Your task to perform on an android device: turn off improve location accuracy Image 0: 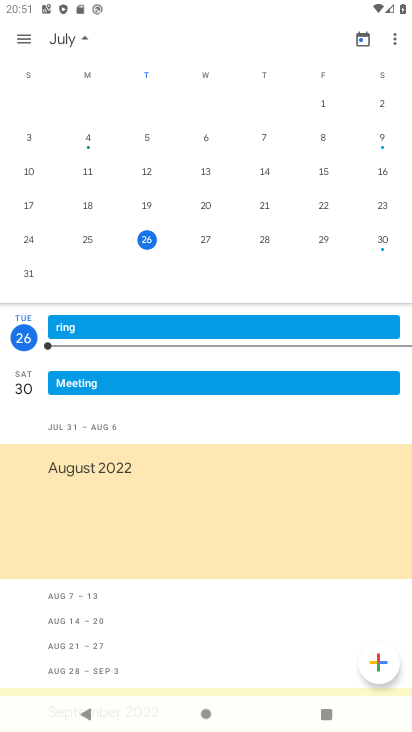
Step 0: press home button
Your task to perform on an android device: turn off improve location accuracy Image 1: 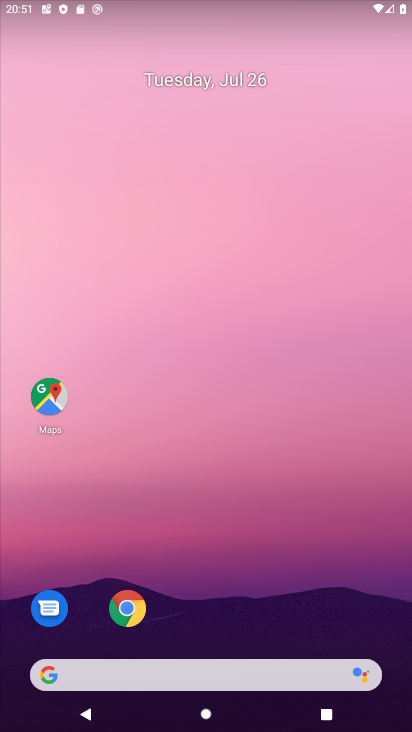
Step 1: drag from (37, 717) to (267, 174)
Your task to perform on an android device: turn off improve location accuracy Image 2: 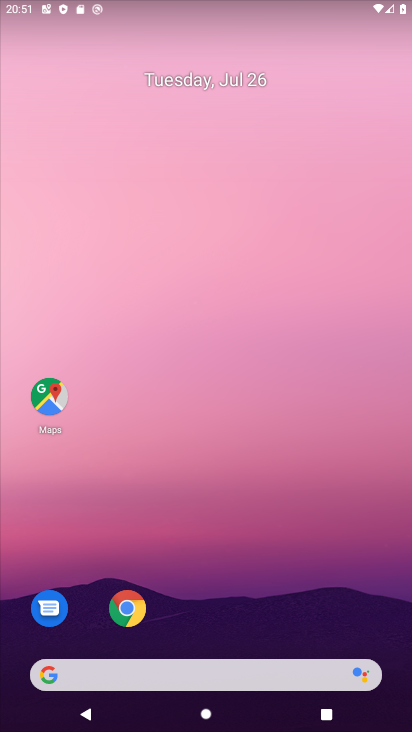
Step 2: drag from (21, 688) to (208, 181)
Your task to perform on an android device: turn off improve location accuracy Image 3: 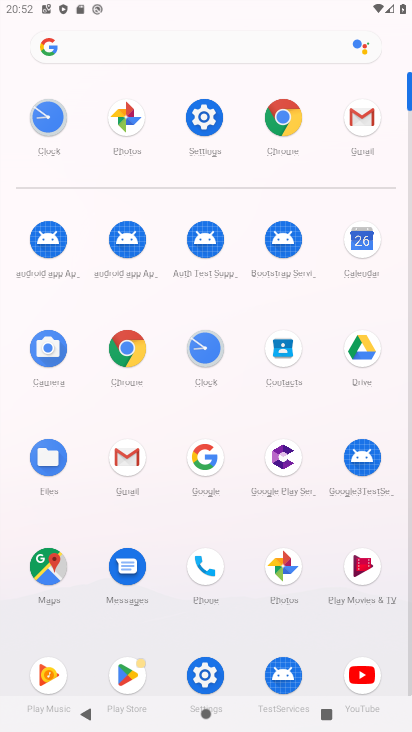
Step 3: click (208, 671)
Your task to perform on an android device: turn off improve location accuracy Image 4: 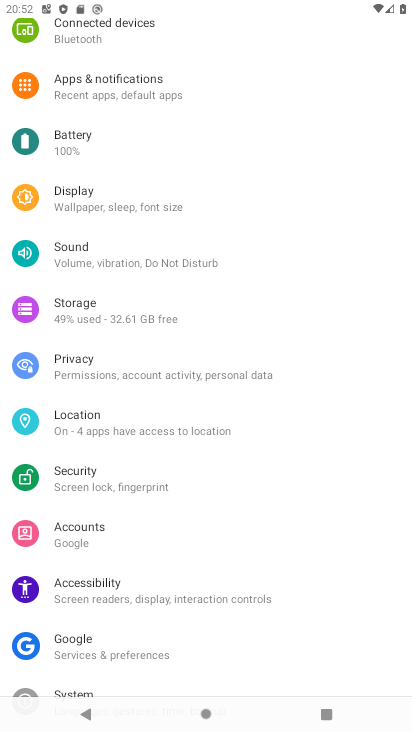
Step 4: click (105, 407)
Your task to perform on an android device: turn off improve location accuracy Image 5: 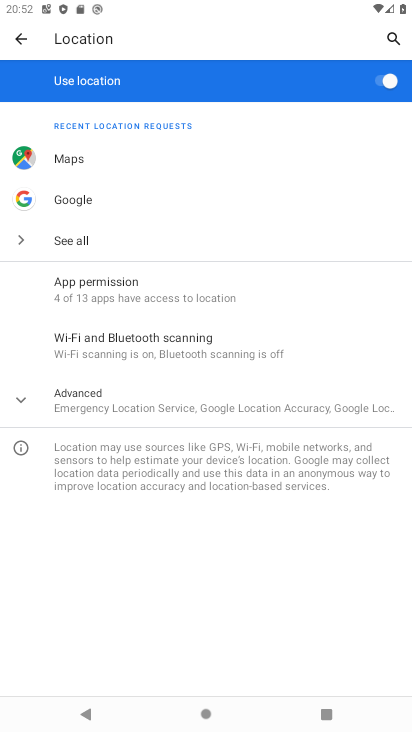
Step 5: click (104, 404)
Your task to perform on an android device: turn off improve location accuracy Image 6: 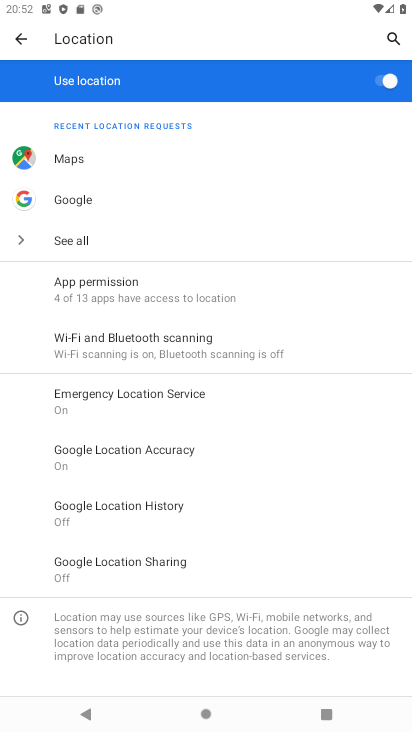
Step 6: click (126, 469)
Your task to perform on an android device: turn off improve location accuracy Image 7: 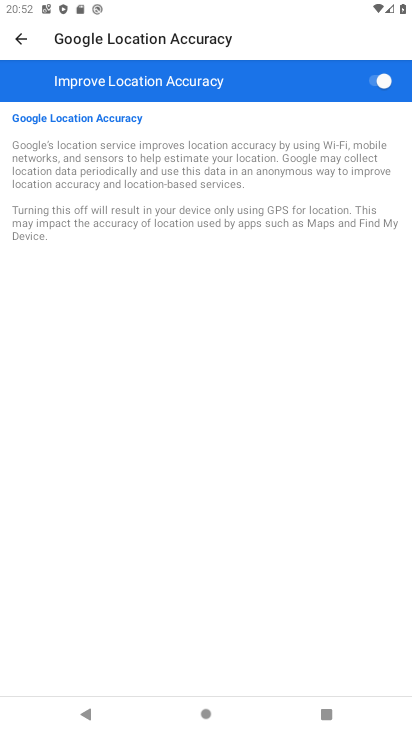
Step 7: click (388, 68)
Your task to perform on an android device: turn off improve location accuracy Image 8: 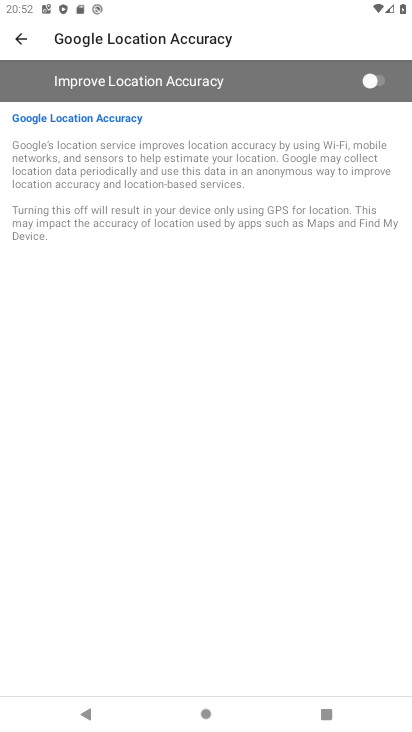
Step 8: task complete